Your task to perform on an android device: Go to Yahoo.com Image 0: 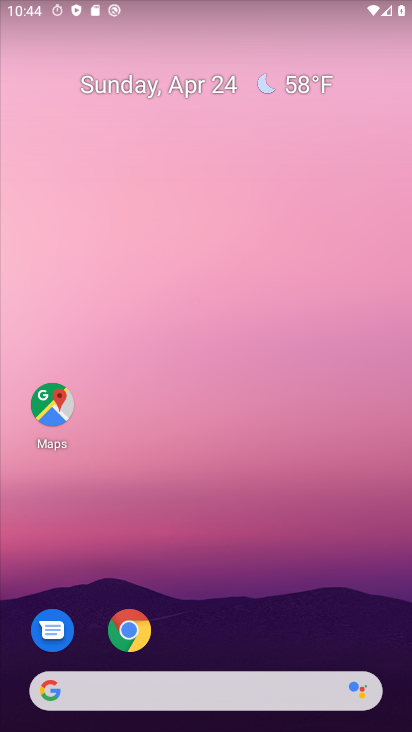
Step 0: drag from (320, 576) to (400, 90)
Your task to perform on an android device: Go to Yahoo.com Image 1: 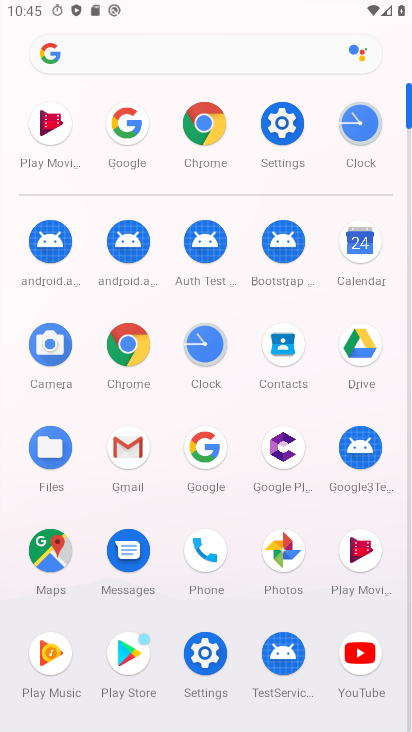
Step 1: drag from (223, 508) to (279, 274)
Your task to perform on an android device: Go to Yahoo.com Image 2: 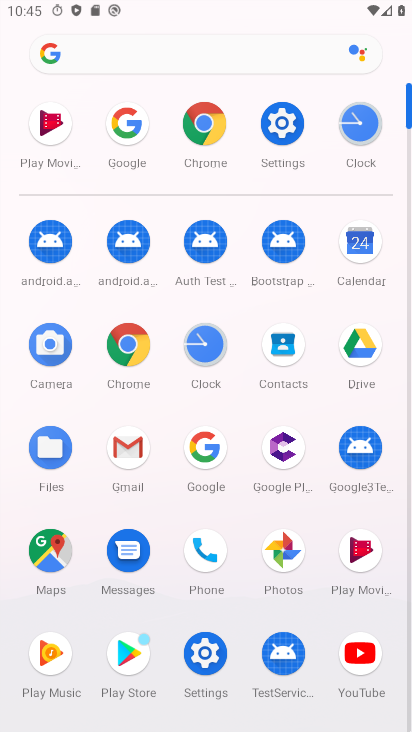
Step 2: click (120, 356)
Your task to perform on an android device: Go to Yahoo.com Image 3: 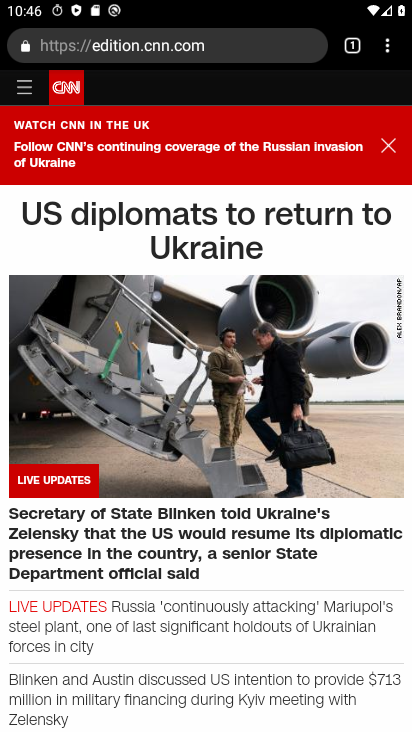
Step 3: click (227, 43)
Your task to perform on an android device: Go to Yahoo.com Image 4: 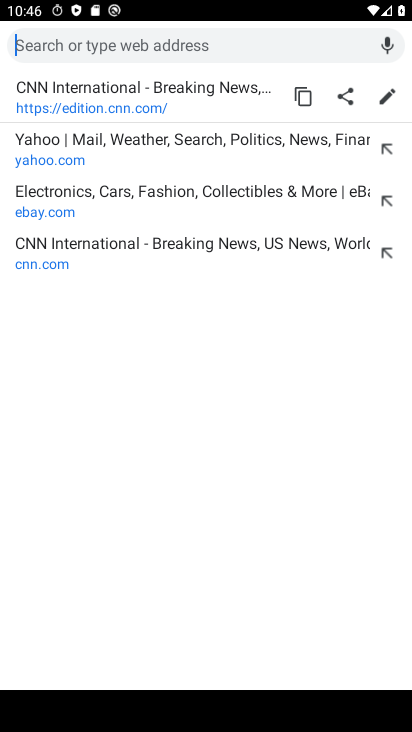
Step 4: click (209, 48)
Your task to perform on an android device: Go to Yahoo.com Image 5: 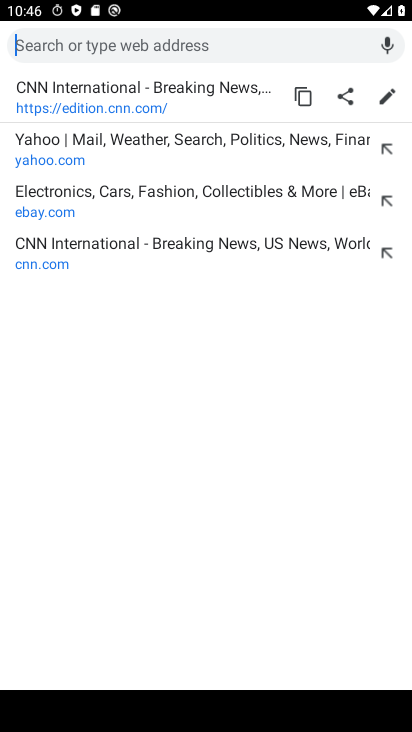
Step 5: click (150, 153)
Your task to perform on an android device: Go to Yahoo.com Image 6: 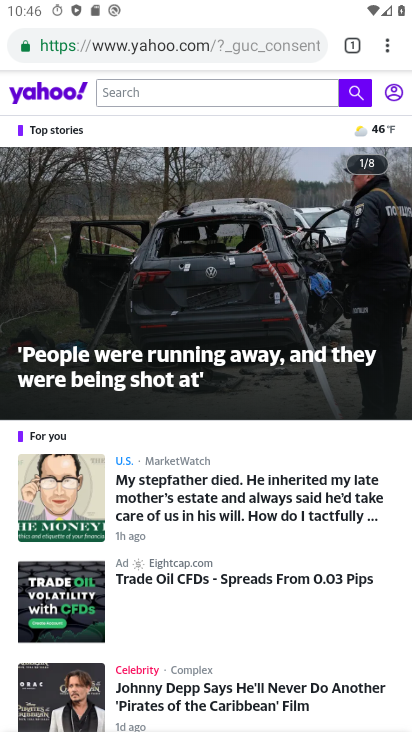
Step 6: task complete